Your task to perform on an android device: Open Youtube and go to "Your channel" Image 0: 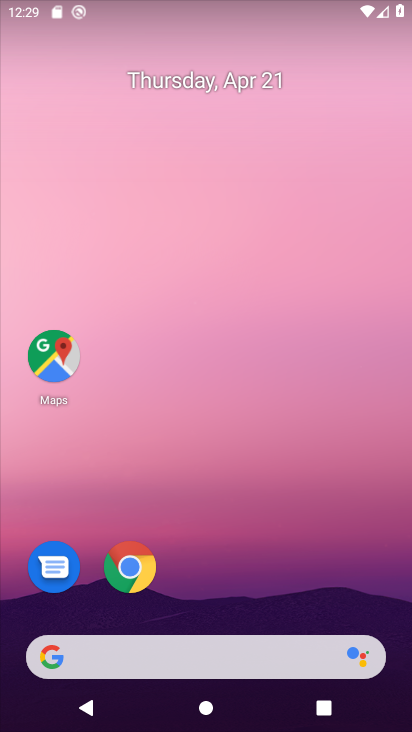
Step 0: drag from (212, 485) to (283, 132)
Your task to perform on an android device: Open Youtube and go to "Your channel" Image 1: 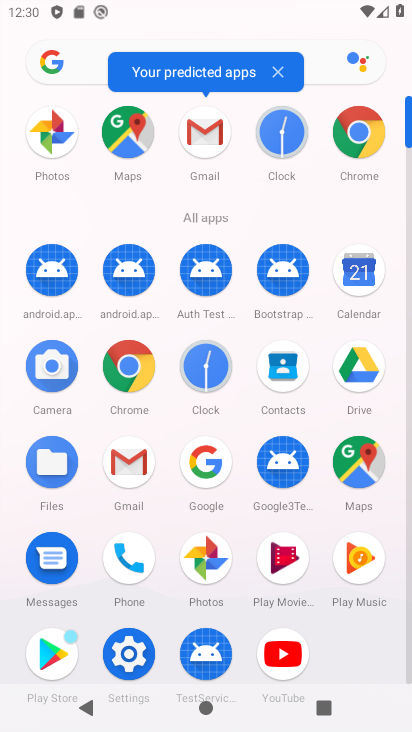
Step 1: click (292, 663)
Your task to perform on an android device: Open Youtube and go to "Your channel" Image 2: 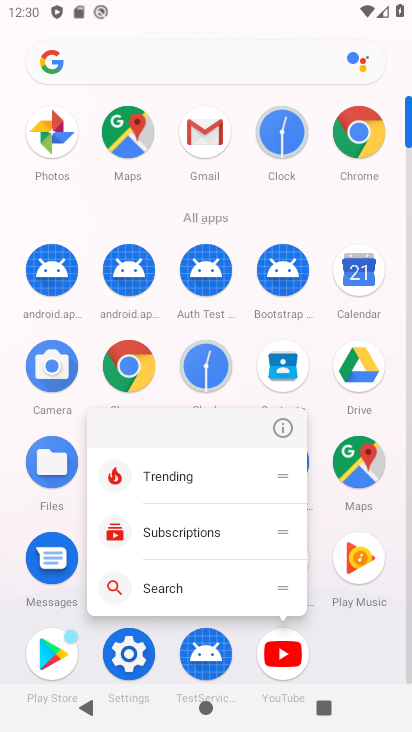
Step 2: click (284, 655)
Your task to perform on an android device: Open Youtube and go to "Your channel" Image 3: 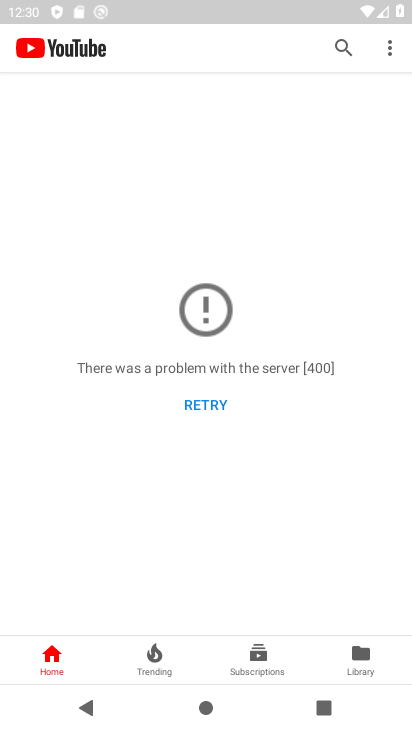
Step 3: click (369, 659)
Your task to perform on an android device: Open Youtube and go to "Your channel" Image 4: 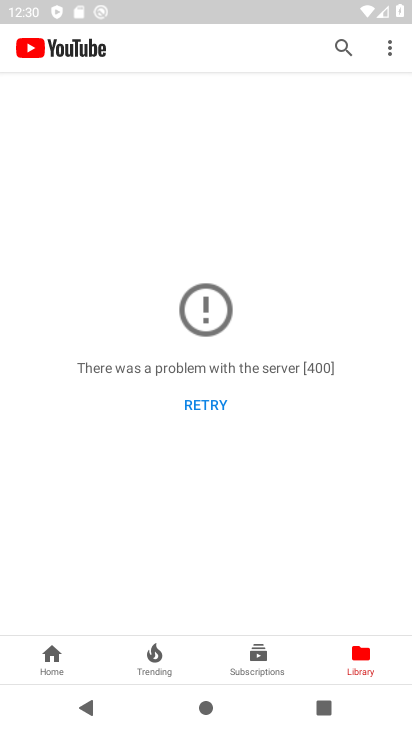
Step 4: task complete